Your task to perform on an android device: Search for sushi restaurants on Maps Image 0: 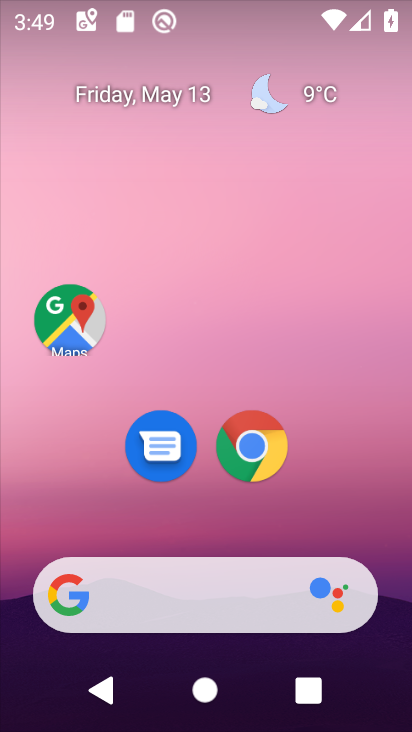
Step 0: click (92, 314)
Your task to perform on an android device: Search for sushi restaurants on Maps Image 1: 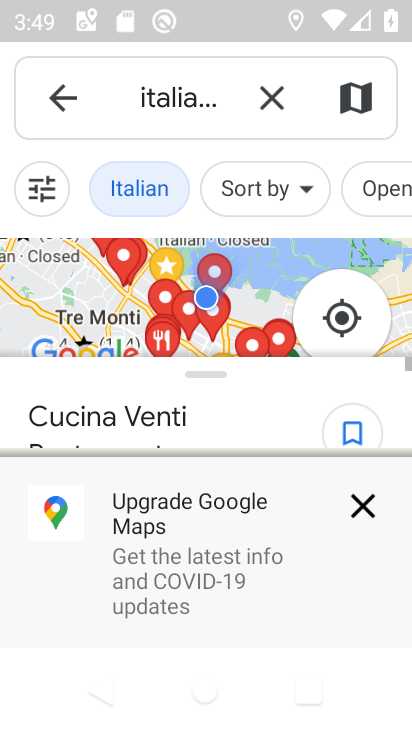
Step 1: click (252, 102)
Your task to perform on an android device: Search for sushi restaurants on Maps Image 2: 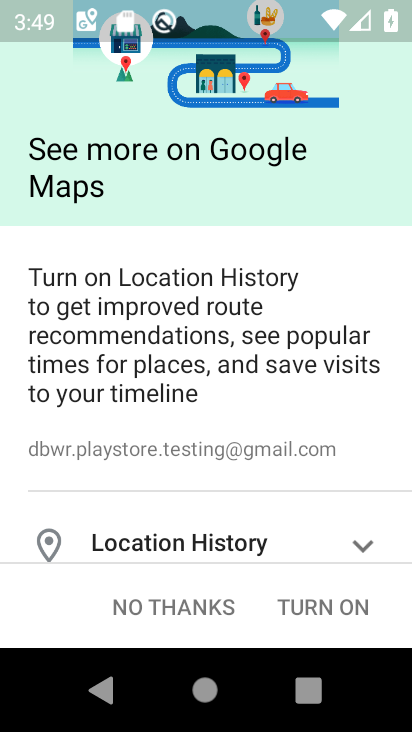
Step 2: click (194, 601)
Your task to perform on an android device: Search for sushi restaurants on Maps Image 3: 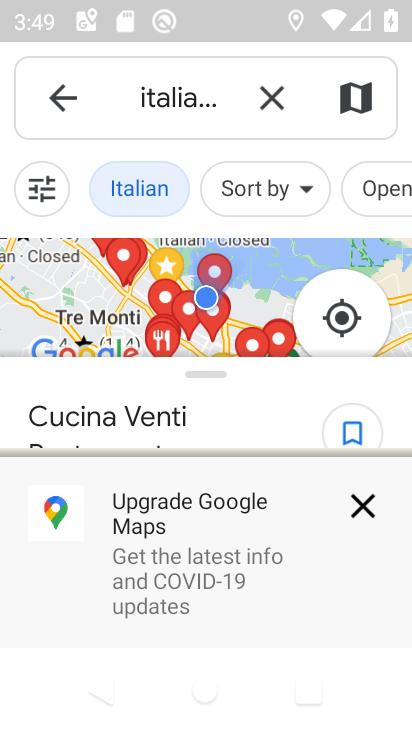
Step 3: click (280, 97)
Your task to perform on an android device: Search for sushi restaurants on Maps Image 4: 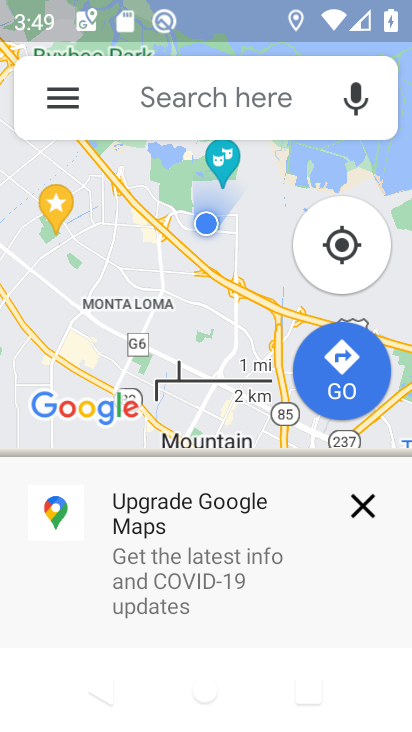
Step 4: click (185, 109)
Your task to perform on an android device: Search for sushi restaurants on Maps Image 5: 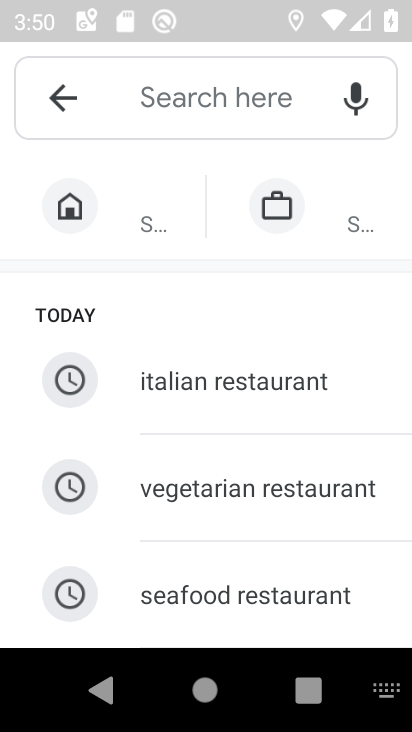
Step 5: type "sushi restaurant"
Your task to perform on an android device: Search for sushi restaurants on Maps Image 6: 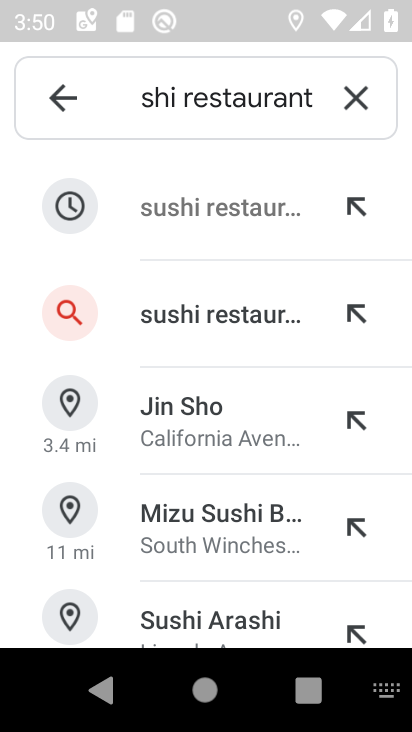
Step 6: click (185, 205)
Your task to perform on an android device: Search for sushi restaurants on Maps Image 7: 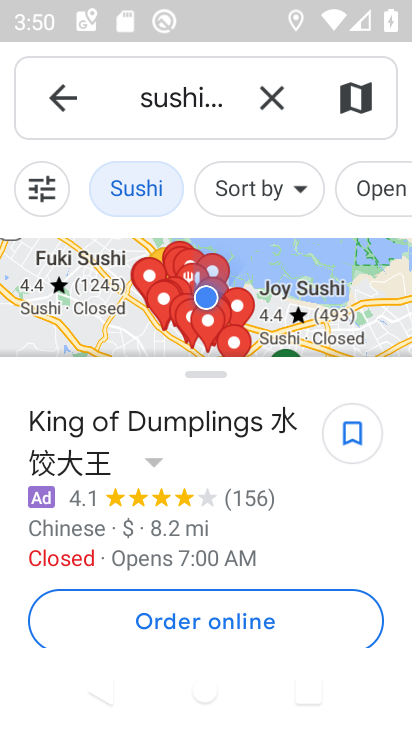
Step 7: task complete